Your task to perform on an android device: Open internet settings Image 0: 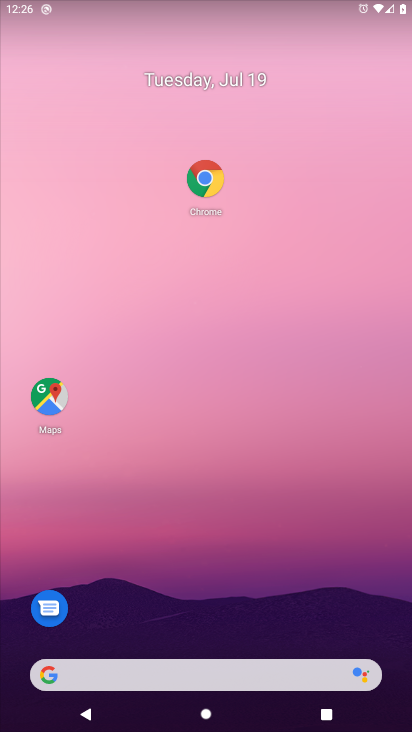
Step 0: drag from (44, 709) to (171, 279)
Your task to perform on an android device: Open internet settings Image 1: 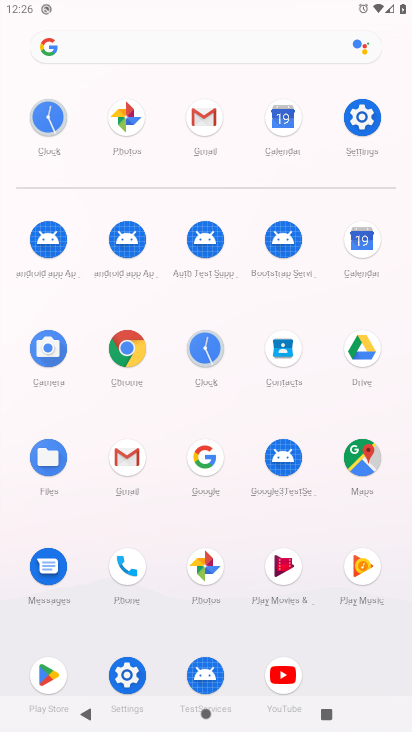
Step 1: click (130, 672)
Your task to perform on an android device: Open internet settings Image 2: 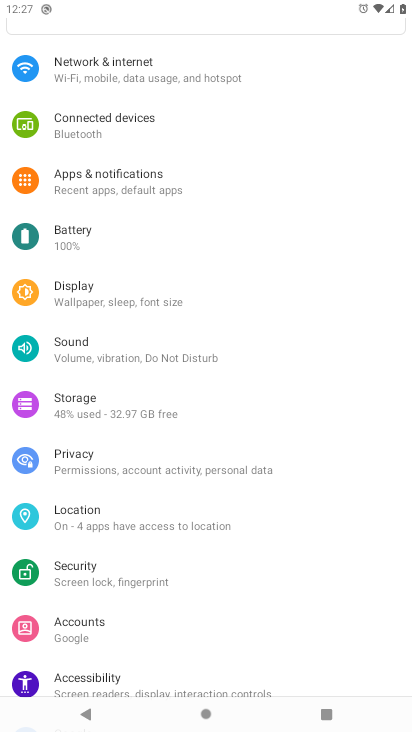
Step 2: click (111, 80)
Your task to perform on an android device: Open internet settings Image 3: 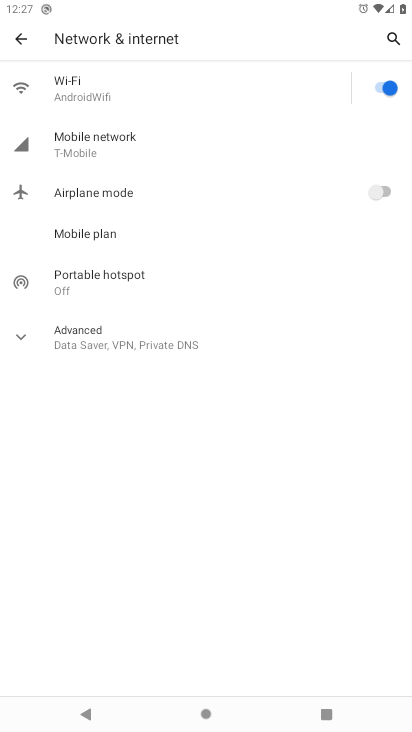
Step 3: task complete